Your task to perform on an android device: check battery use Image 0: 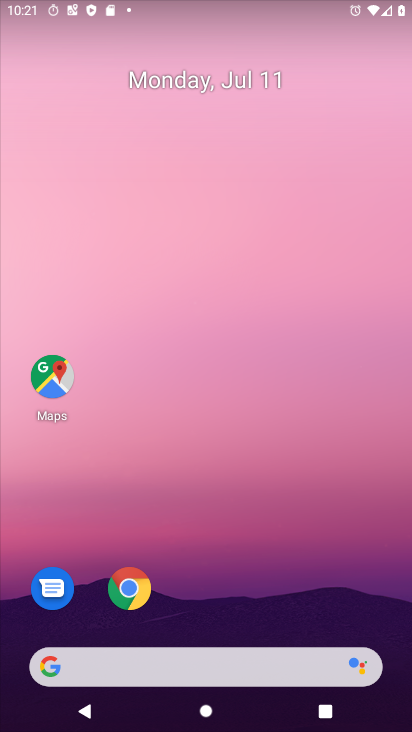
Step 0: drag from (251, 593) to (272, 7)
Your task to perform on an android device: check battery use Image 1: 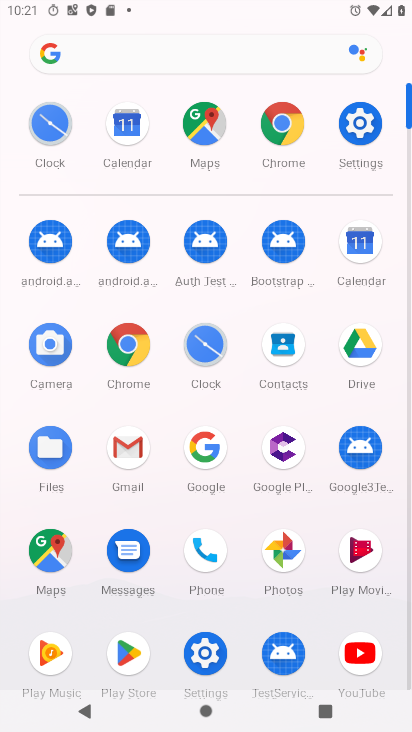
Step 1: click (350, 133)
Your task to perform on an android device: check battery use Image 2: 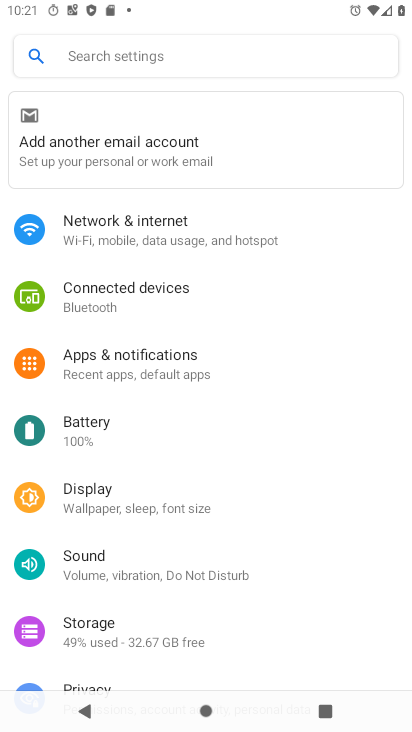
Step 2: click (108, 419)
Your task to perform on an android device: check battery use Image 3: 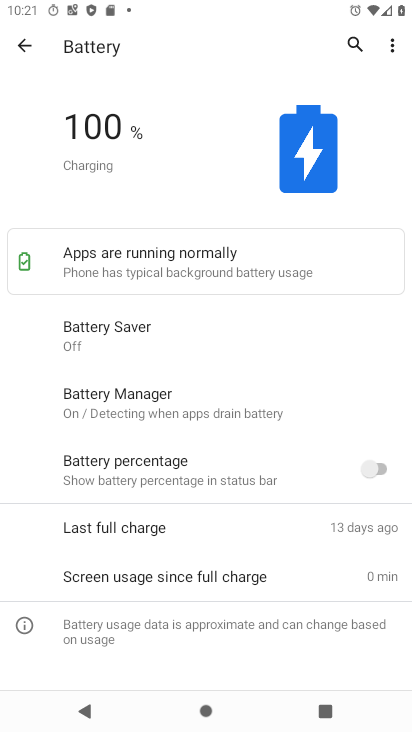
Step 3: click (389, 44)
Your task to perform on an android device: check battery use Image 4: 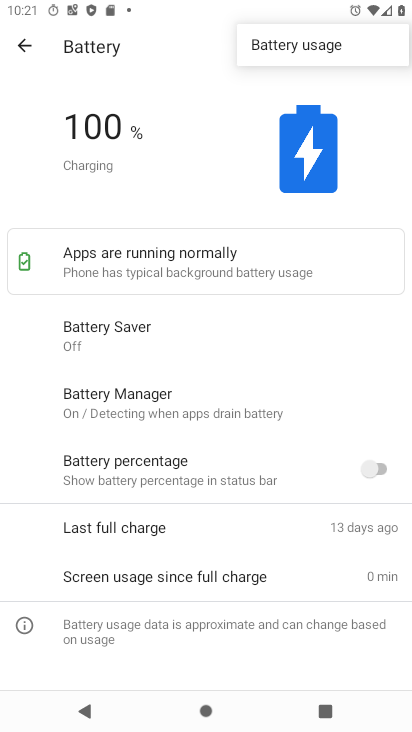
Step 4: click (294, 42)
Your task to perform on an android device: check battery use Image 5: 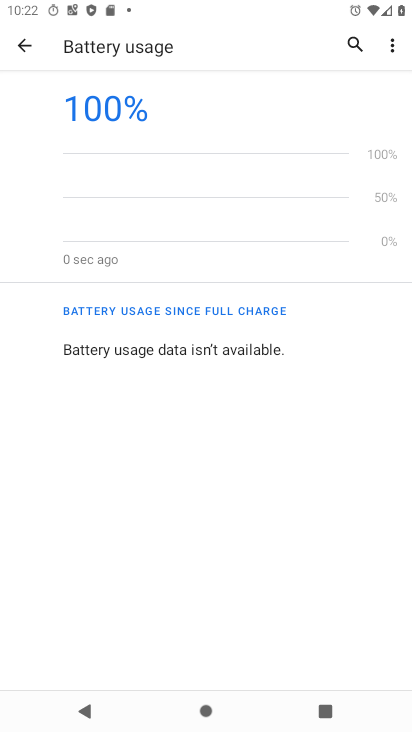
Step 5: task complete